Your task to perform on an android device: set default search engine in the chrome app Image 0: 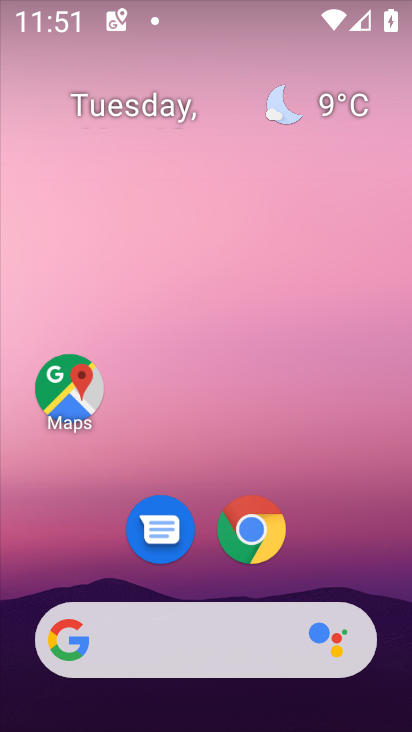
Step 0: click (253, 533)
Your task to perform on an android device: set default search engine in the chrome app Image 1: 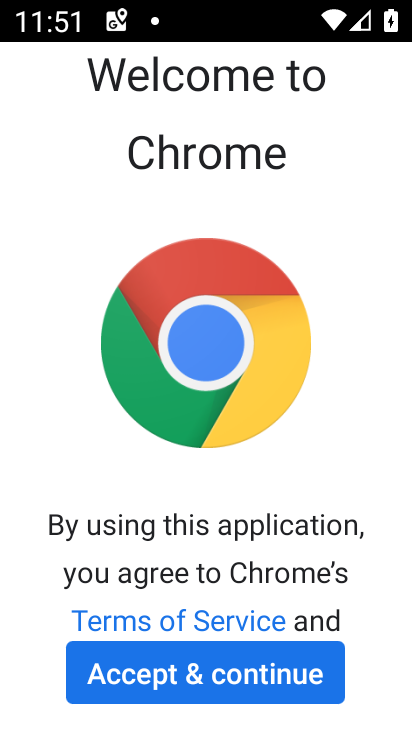
Step 1: click (227, 679)
Your task to perform on an android device: set default search engine in the chrome app Image 2: 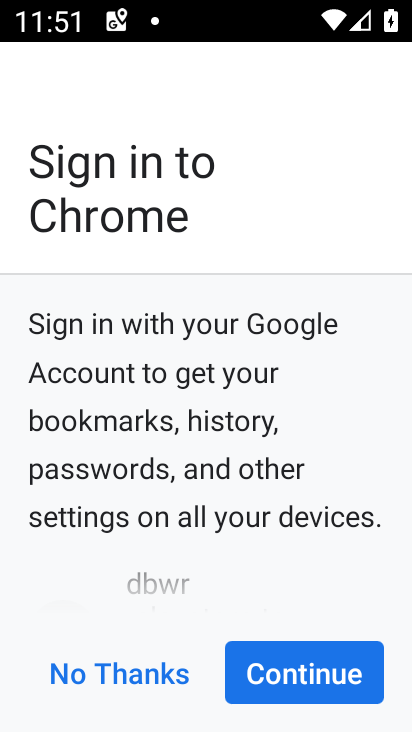
Step 2: click (278, 675)
Your task to perform on an android device: set default search engine in the chrome app Image 3: 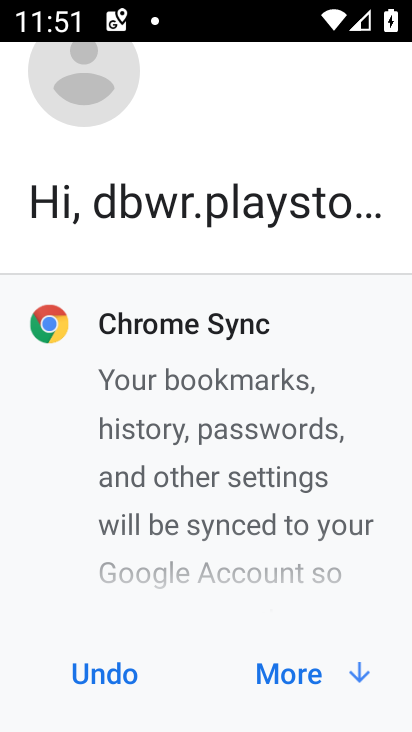
Step 3: click (278, 675)
Your task to perform on an android device: set default search engine in the chrome app Image 4: 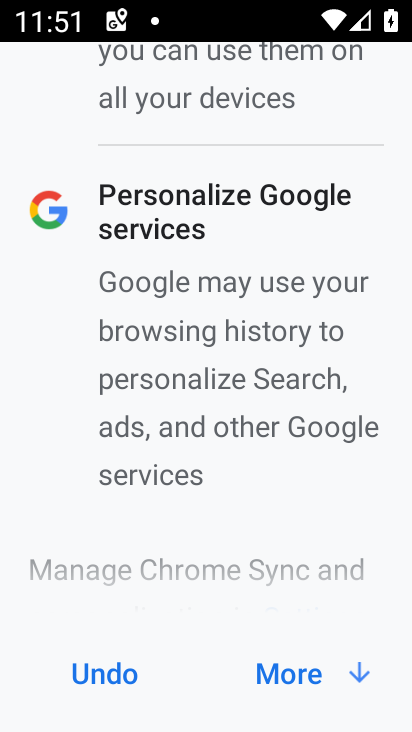
Step 4: click (278, 675)
Your task to perform on an android device: set default search engine in the chrome app Image 5: 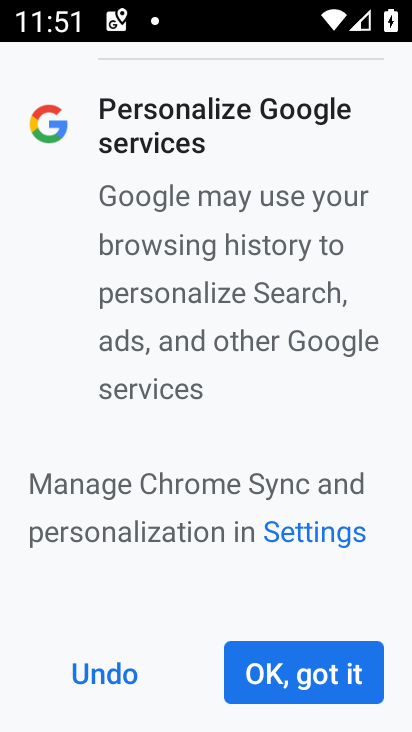
Step 5: click (278, 675)
Your task to perform on an android device: set default search engine in the chrome app Image 6: 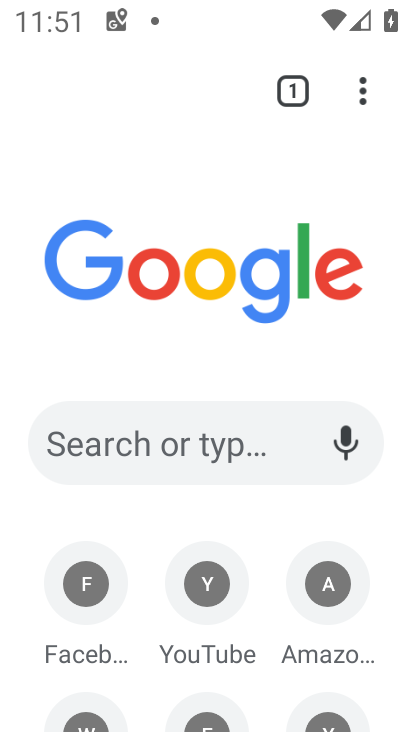
Step 6: drag from (365, 96) to (256, 579)
Your task to perform on an android device: set default search engine in the chrome app Image 7: 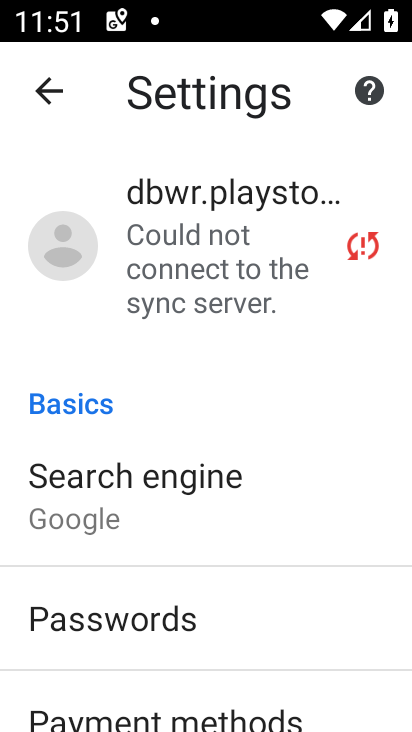
Step 7: click (153, 522)
Your task to perform on an android device: set default search engine in the chrome app Image 8: 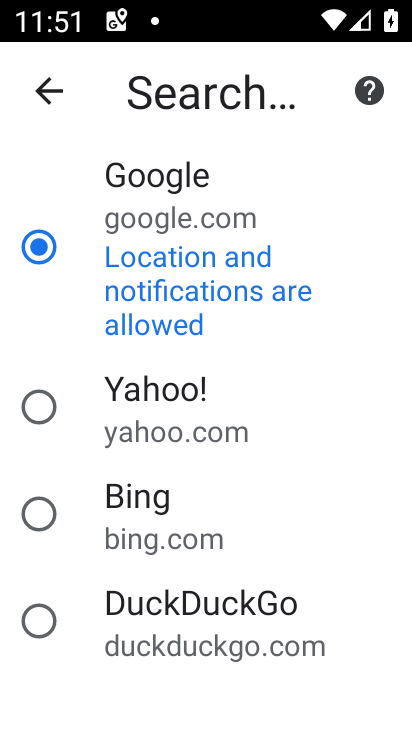
Step 8: click (156, 526)
Your task to perform on an android device: set default search engine in the chrome app Image 9: 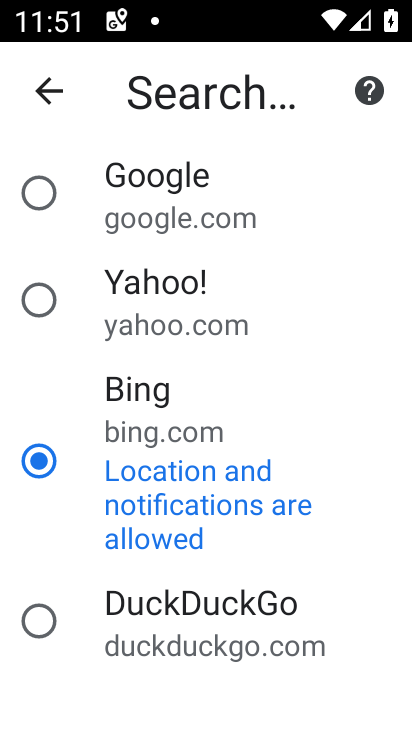
Step 9: task complete